Your task to perform on an android device: turn off translation in the chrome app Image 0: 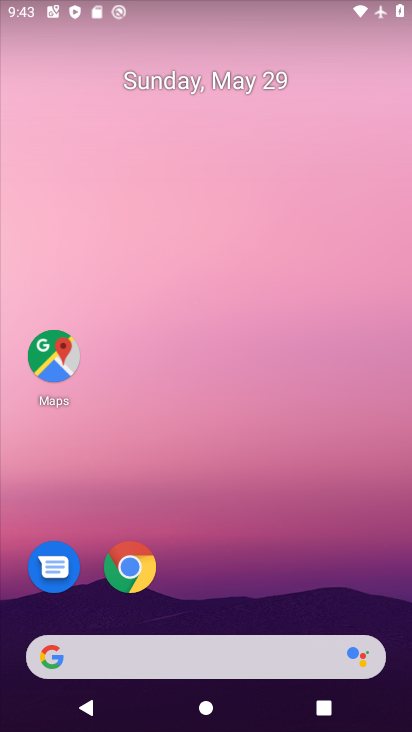
Step 0: click (129, 568)
Your task to perform on an android device: turn off translation in the chrome app Image 1: 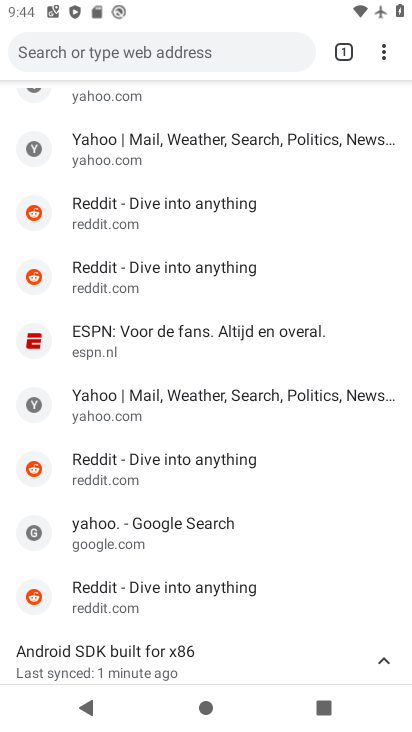
Step 1: click (382, 57)
Your task to perform on an android device: turn off translation in the chrome app Image 2: 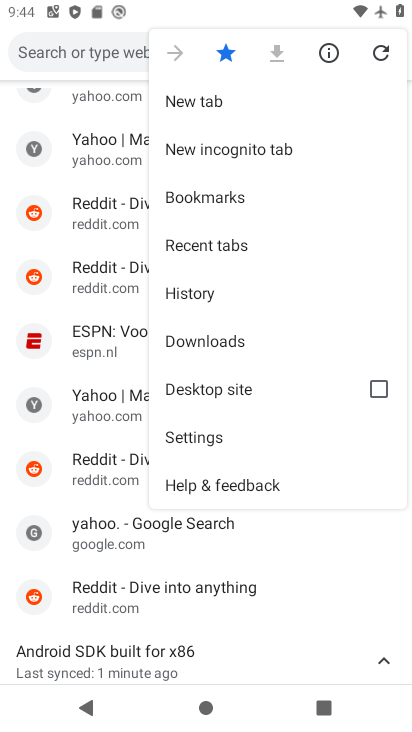
Step 2: click (199, 432)
Your task to perform on an android device: turn off translation in the chrome app Image 3: 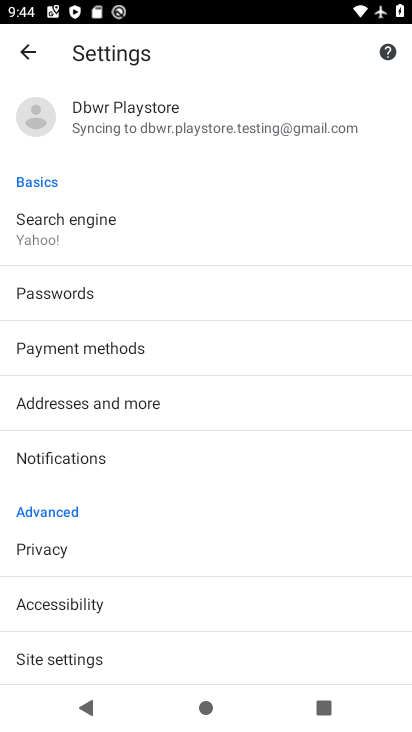
Step 3: drag from (202, 654) to (184, 330)
Your task to perform on an android device: turn off translation in the chrome app Image 4: 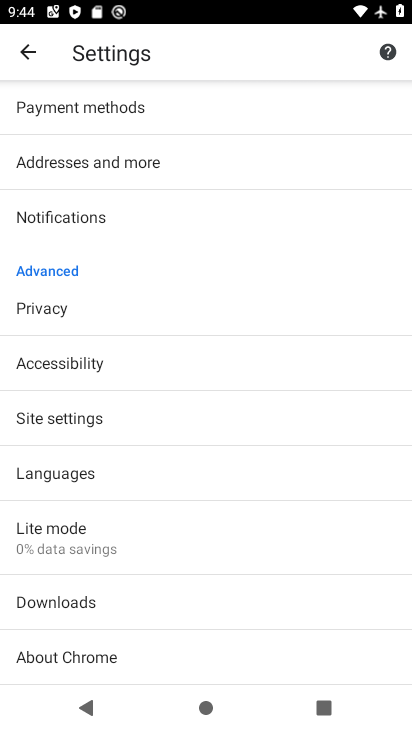
Step 4: click (40, 480)
Your task to perform on an android device: turn off translation in the chrome app Image 5: 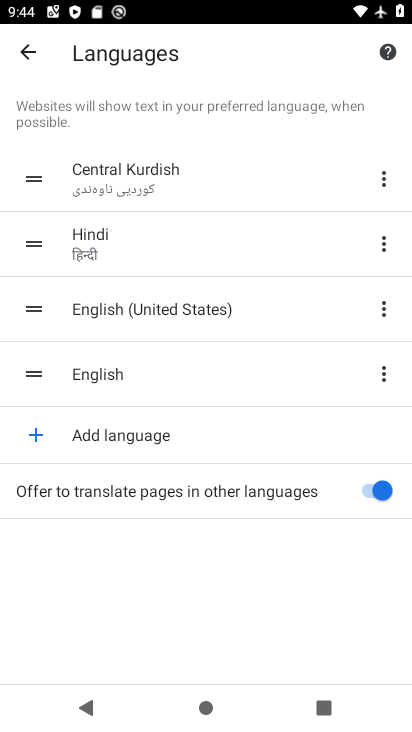
Step 5: click (364, 491)
Your task to perform on an android device: turn off translation in the chrome app Image 6: 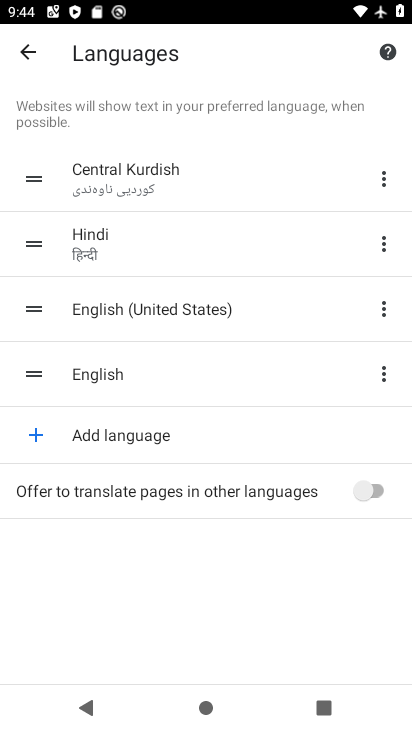
Step 6: task complete